Your task to perform on an android device: allow cookies in the chrome app Image 0: 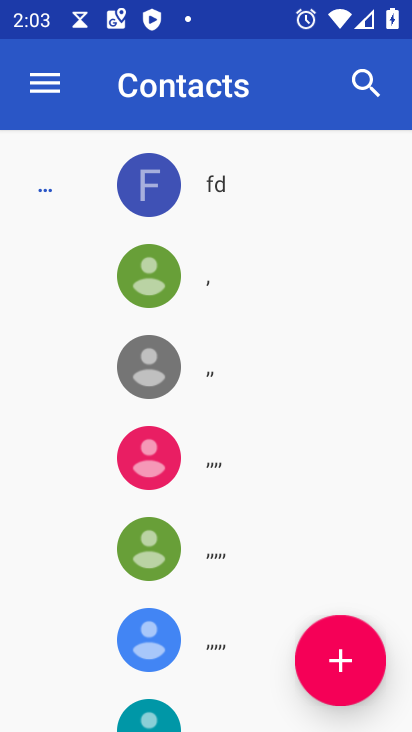
Step 0: press home button
Your task to perform on an android device: allow cookies in the chrome app Image 1: 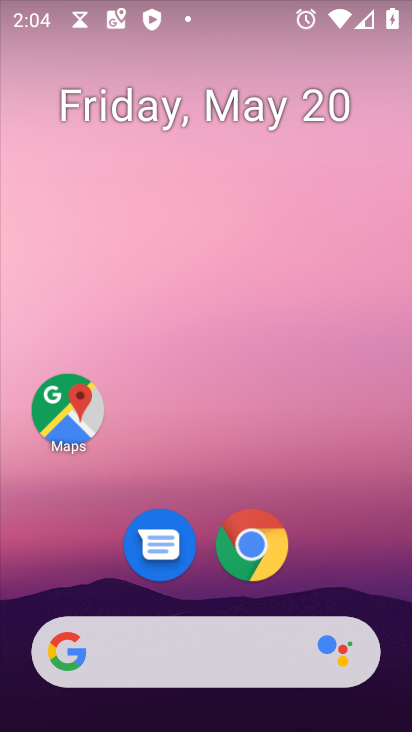
Step 1: click (264, 549)
Your task to perform on an android device: allow cookies in the chrome app Image 2: 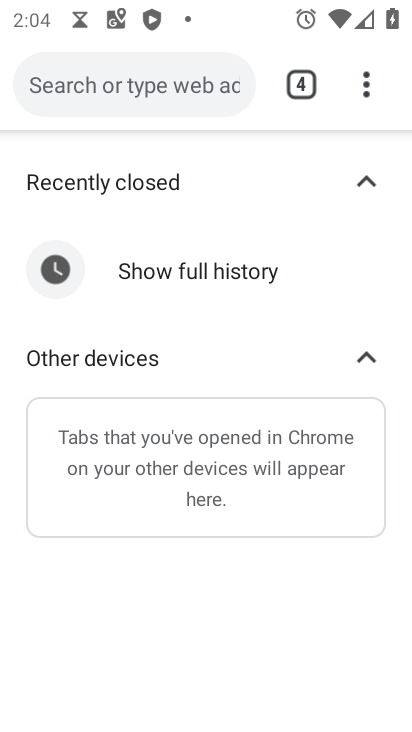
Step 2: click (374, 82)
Your task to perform on an android device: allow cookies in the chrome app Image 3: 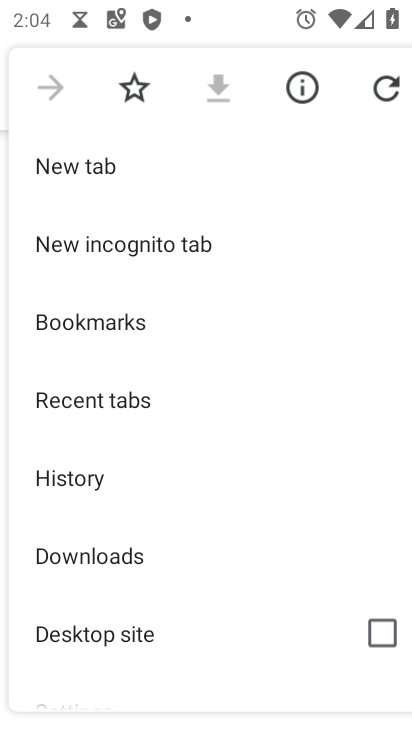
Step 3: drag from (220, 570) to (209, 301)
Your task to perform on an android device: allow cookies in the chrome app Image 4: 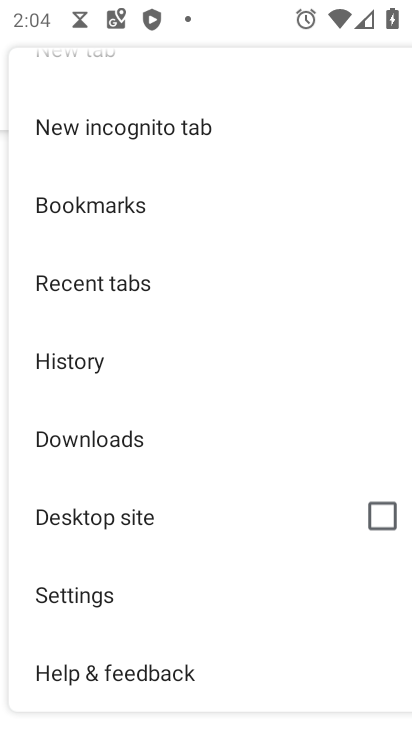
Step 4: click (105, 597)
Your task to perform on an android device: allow cookies in the chrome app Image 5: 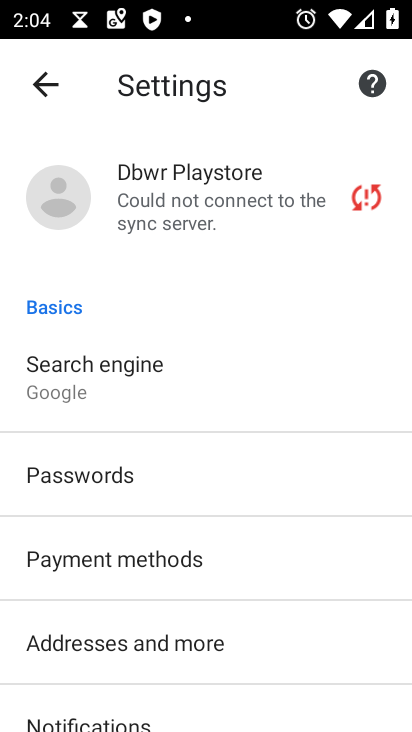
Step 5: drag from (267, 612) to (246, 366)
Your task to perform on an android device: allow cookies in the chrome app Image 6: 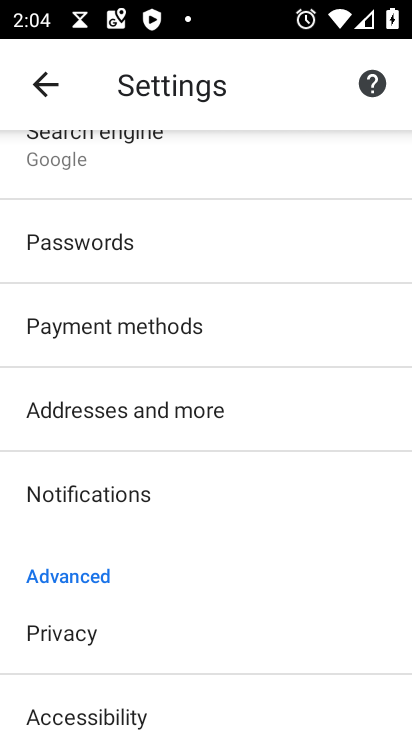
Step 6: drag from (239, 645) to (223, 331)
Your task to perform on an android device: allow cookies in the chrome app Image 7: 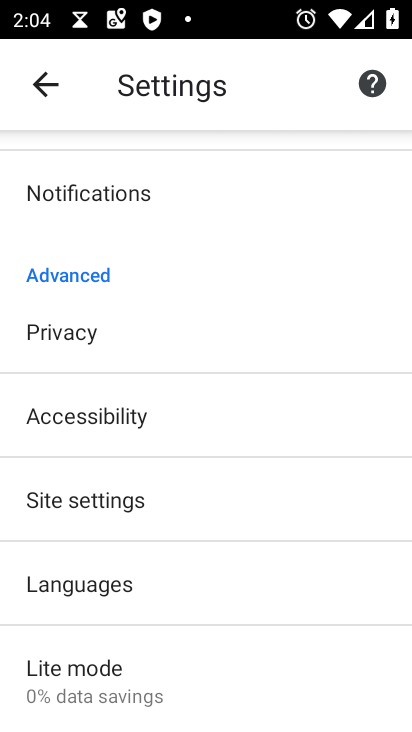
Step 7: click (141, 505)
Your task to perform on an android device: allow cookies in the chrome app Image 8: 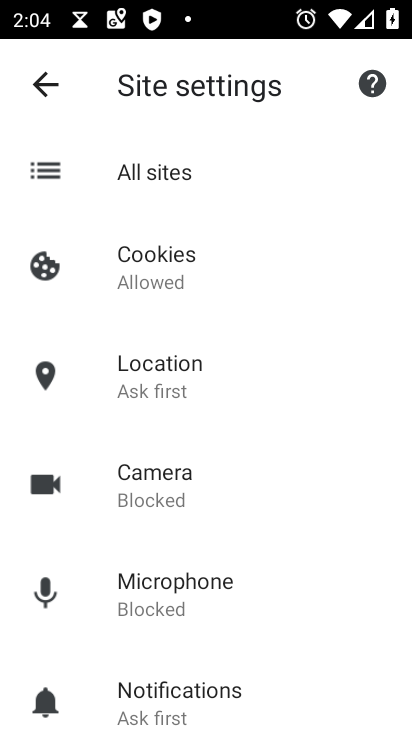
Step 8: click (169, 272)
Your task to perform on an android device: allow cookies in the chrome app Image 9: 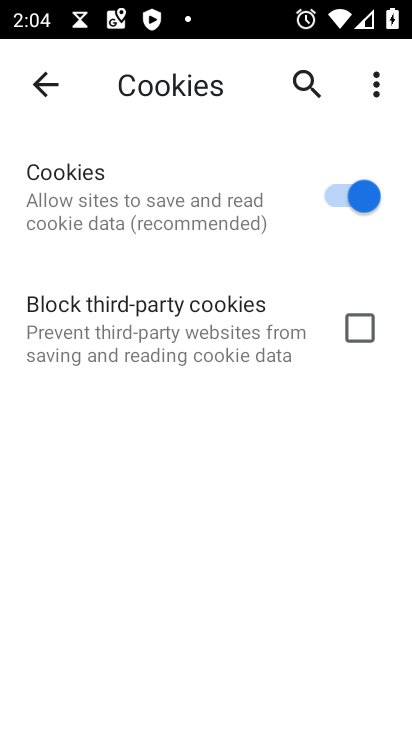
Step 9: task complete